Your task to perform on an android device: toggle priority inbox in the gmail app Image 0: 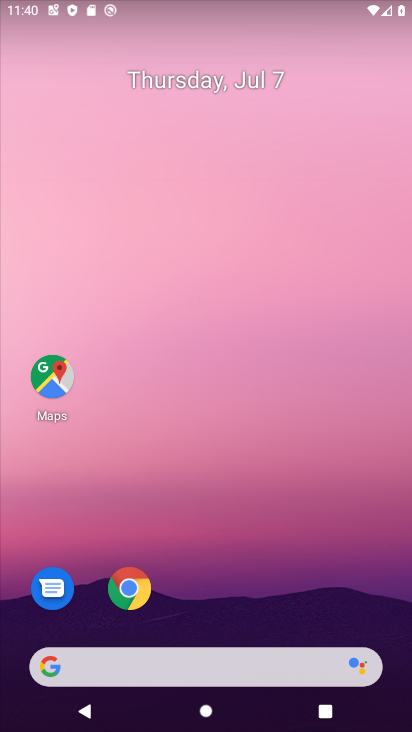
Step 0: drag from (230, 599) to (272, 97)
Your task to perform on an android device: toggle priority inbox in the gmail app Image 1: 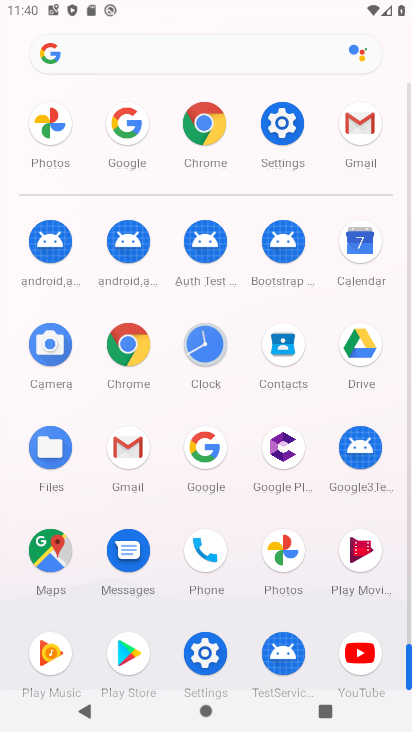
Step 1: click (360, 123)
Your task to perform on an android device: toggle priority inbox in the gmail app Image 2: 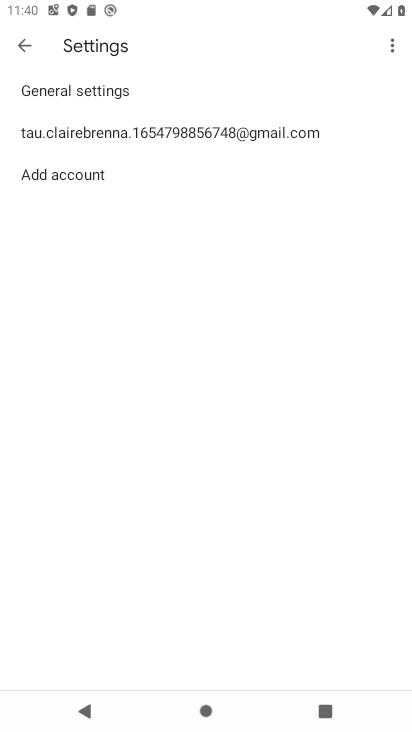
Step 2: click (196, 129)
Your task to perform on an android device: toggle priority inbox in the gmail app Image 3: 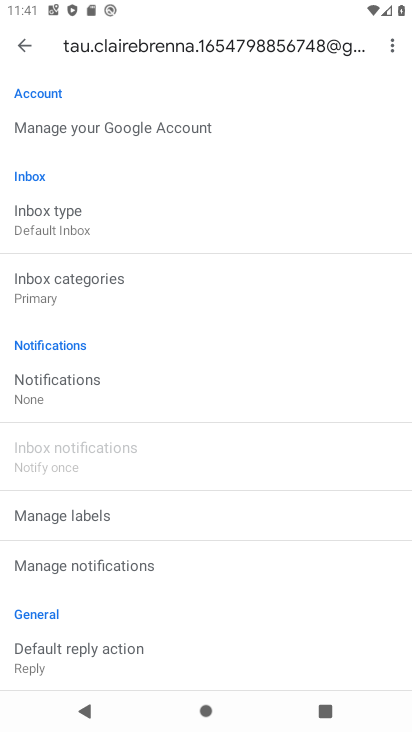
Step 3: click (88, 218)
Your task to perform on an android device: toggle priority inbox in the gmail app Image 4: 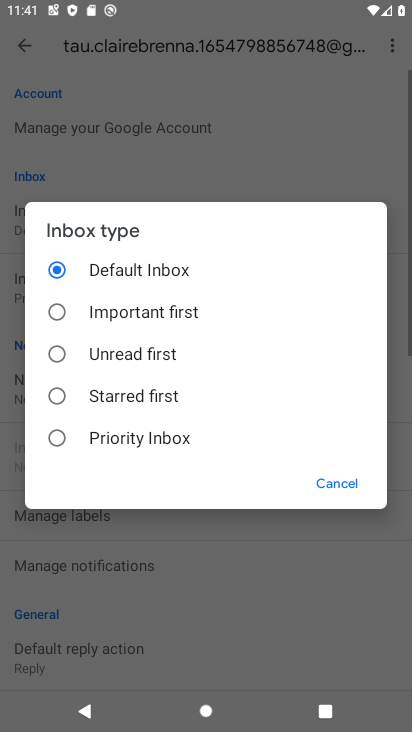
Step 4: click (61, 440)
Your task to perform on an android device: toggle priority inbox in the gmail app Image 5: 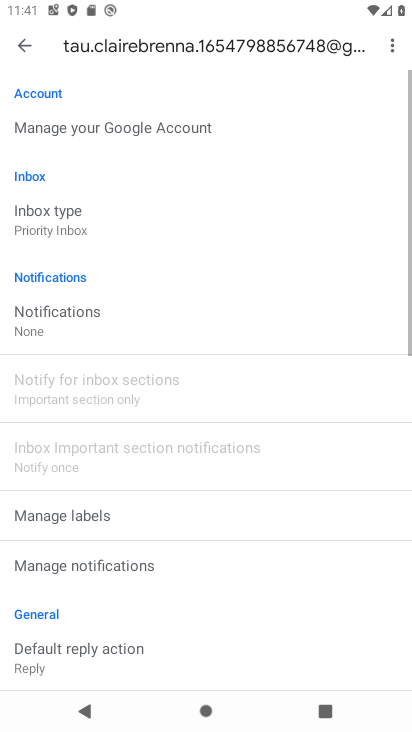
Step 5: task complete